Your task to perform on an android device: Open notification settings Image 0: 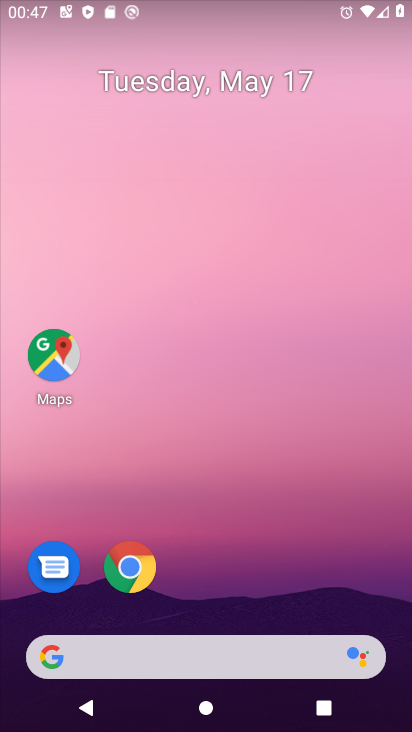
Step 0: drag from (228, 581) to (72, 57)
Your task to perform on an android device: Open notification settings Image 1: 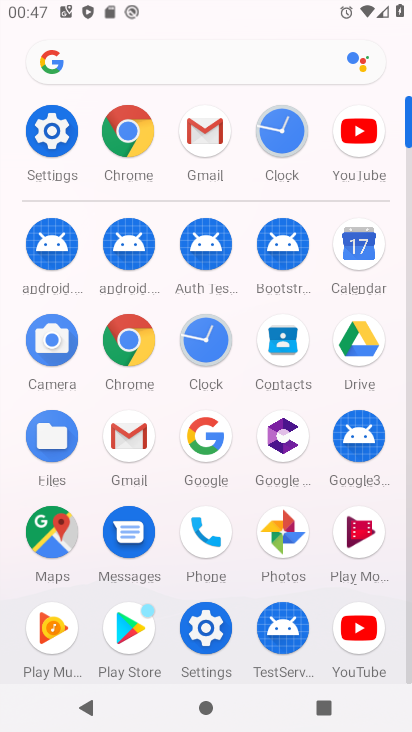
Step 1: click (55, 134)
Your task to perform on an android device: Open notification settings Image 2: 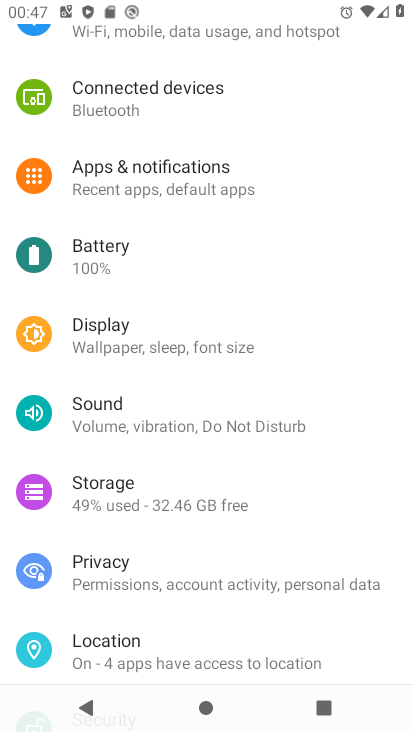
Step 2: click (170, 158)
Your task to perform on an android device: Open notification settings Image 3: 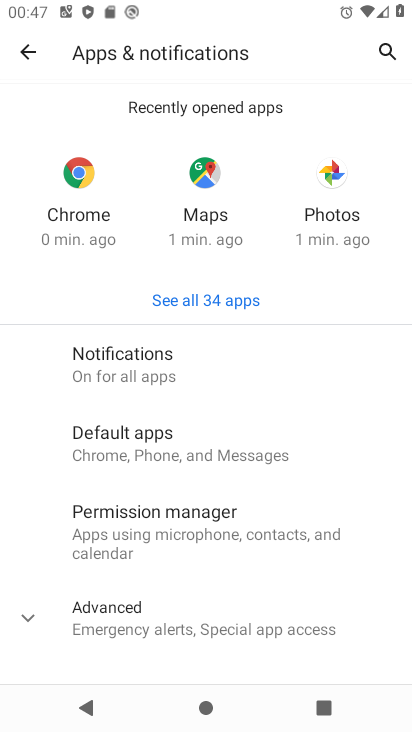
Step 3: task complete